Your task to perform on an android device: toggle pop-ups in chrome Image 0: 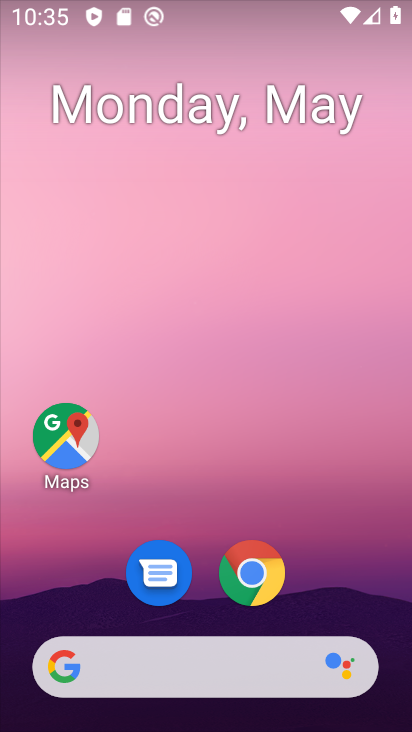
Step 0: drag from (327, 496) to (309, 730)
Your task to perform on an android device: toggle pop-ups in chrome Image 1: 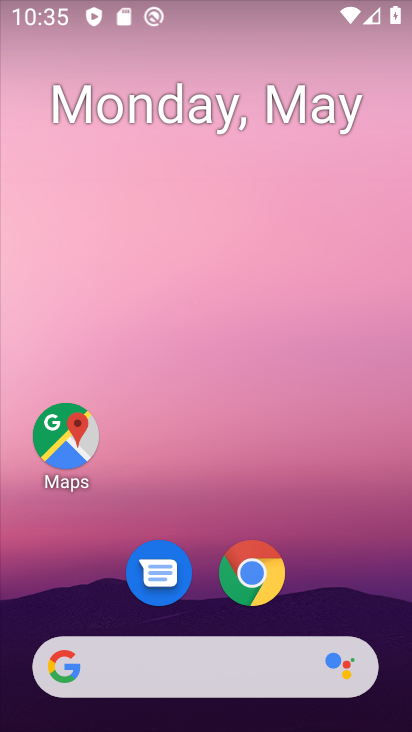
Step 1: click (259, 583)
Your task to perform on an android device: toggle pop-ups in chrome Image 2: 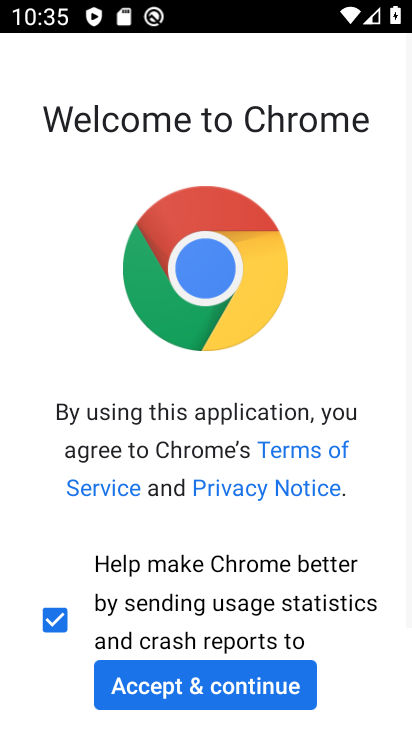
Step 2: click (256, 680)
Your task to perform on an android device: toggle pop-ups in chrome Image 3: 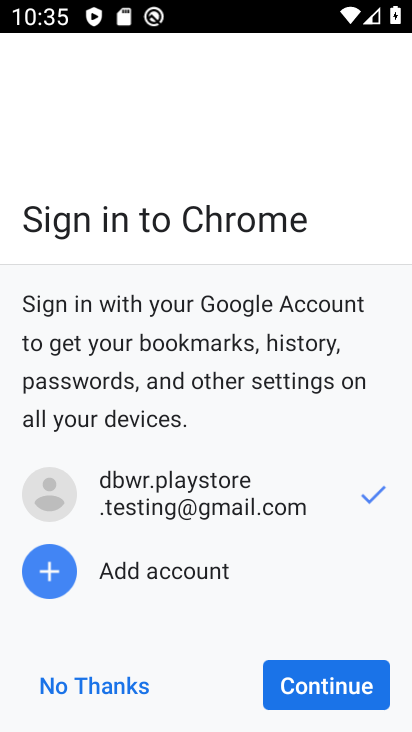
Step 3: click (360, 689)
Your task to perform on an android device: toggle pop-ups in chrome Image 4: 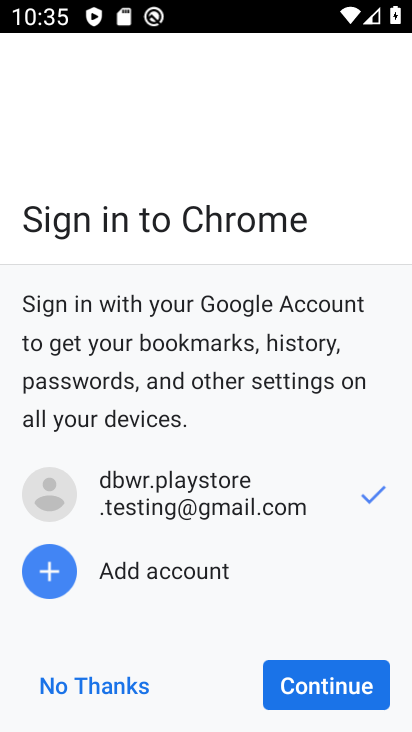
Step 4: click (360, 689)
Your task to perform on an android device: toggle pop-ups in chrome Image 5: 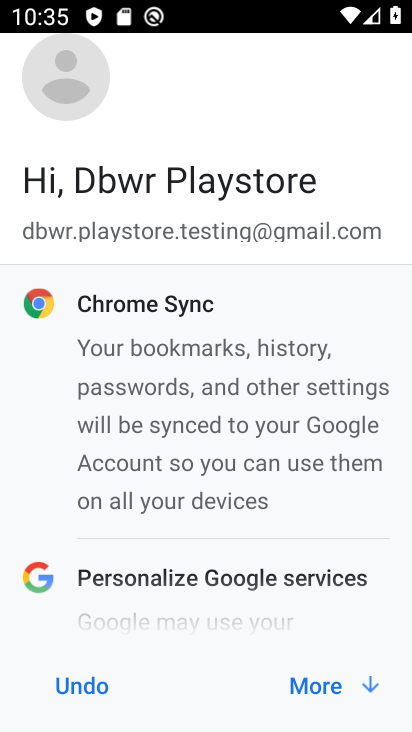
Step 5: click (360, 689)
Your task to perform on an android device: toggle pop-ups in chrome Image 6: 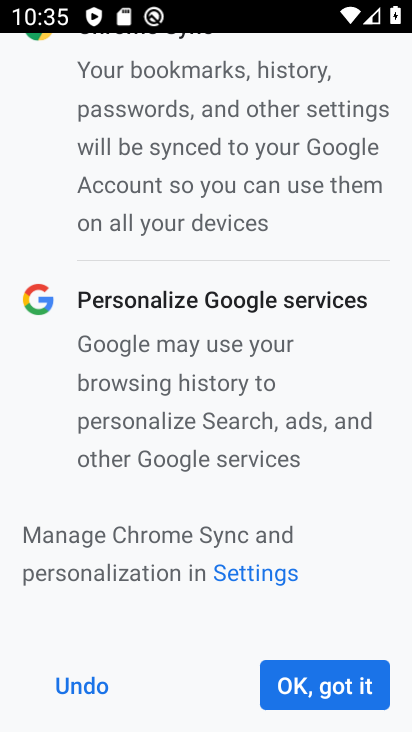
Step 6: click (360, 689)
Your task to perform on an android device: toggle pop-ups in chrome Image 7: 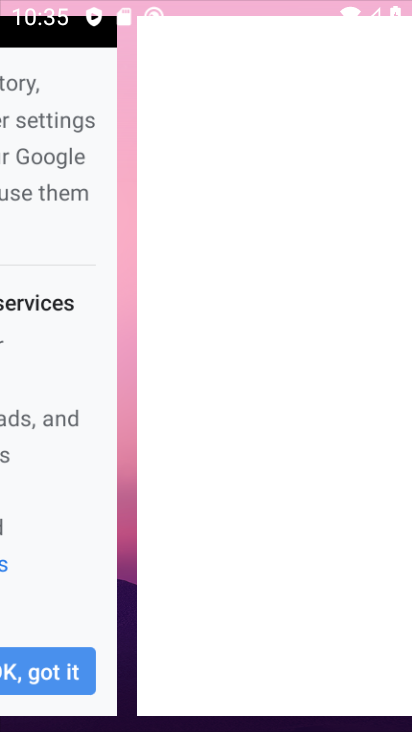
Step 7: click (359, 688)
Your task to perform on an android device: toggle pop-ups in chrome Image 8: 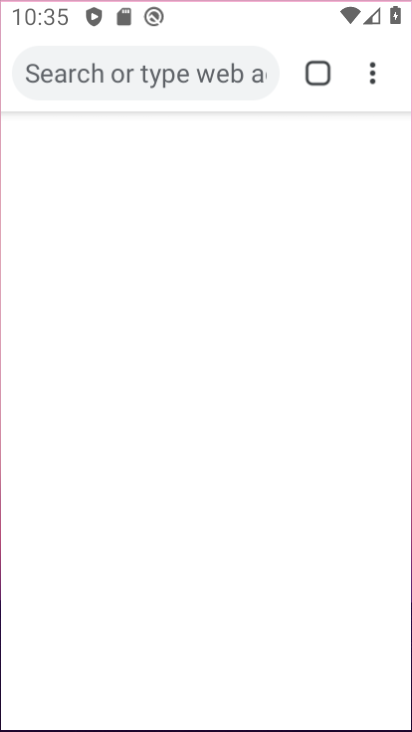
Step 8: click (359, 688)
Your task to perform on an android device: toggle pop-ups in chrome Image 9: 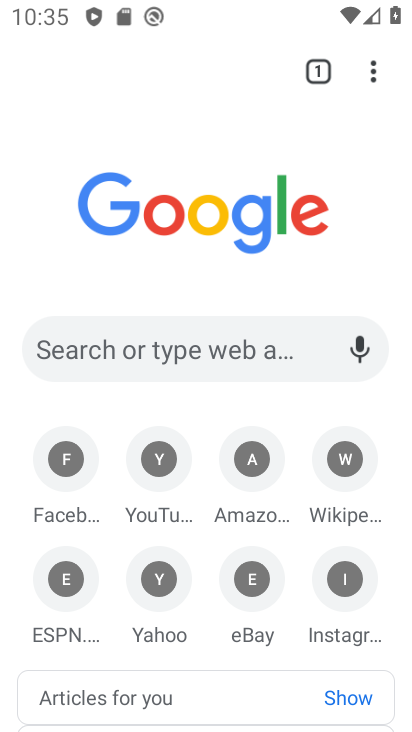
Step 9: click (375, 75)
Your task to perform on an android device: toggle pop-ups in chrome Image 10: 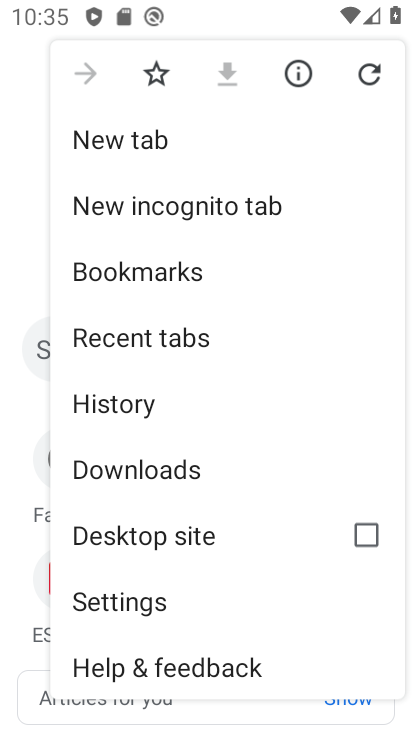
Step 10: click (209, 630)
Your task to perform on an android device: toggle pop-ups in chrome Image 11: 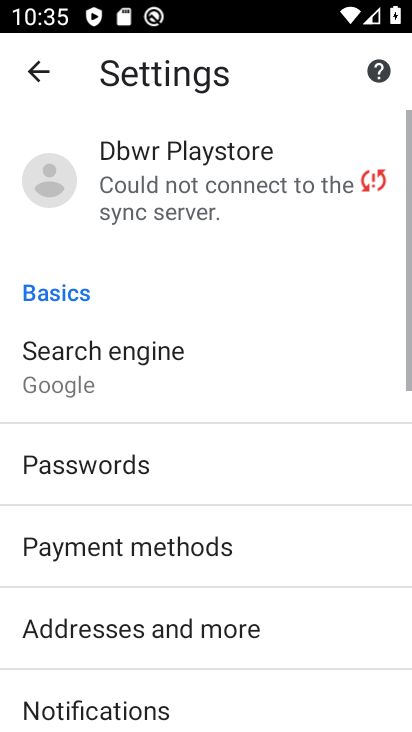
Step 11: drag from (218, 653) to (218, 106)
Your task to perform on an android device: toggle pop-ups in chrome Image 12: 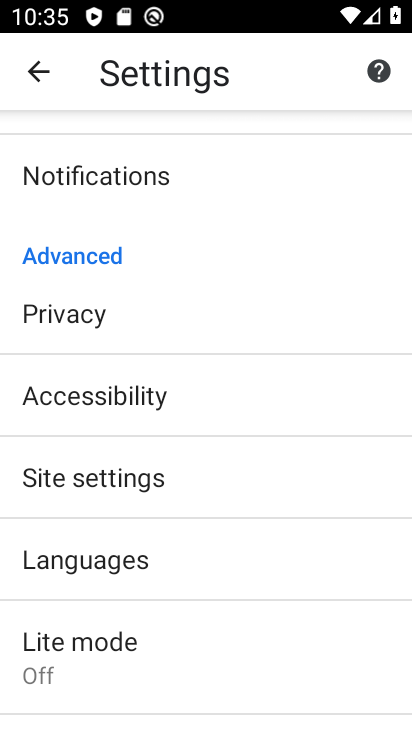
Step 12: click (173, 486)
Your task to perform on an android device: toggle pop-ups in chrome Image 13: 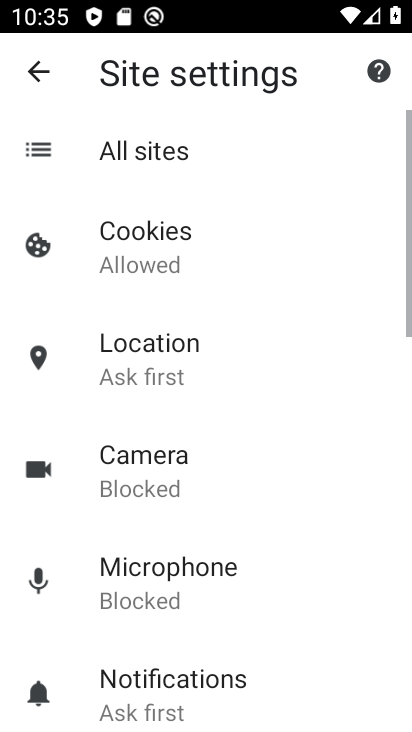
Step 13: drag from (230, 611) to (224, 243)
Your task to perform on an android device: toggle pop-ups in chrome Image 14: 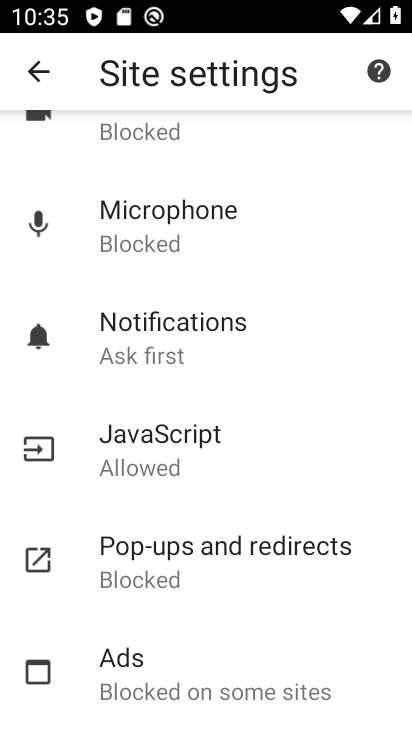
Step 14: click (204, 557)
Your task to perform on an android device: toggle pop-ups in chrome Image 15: 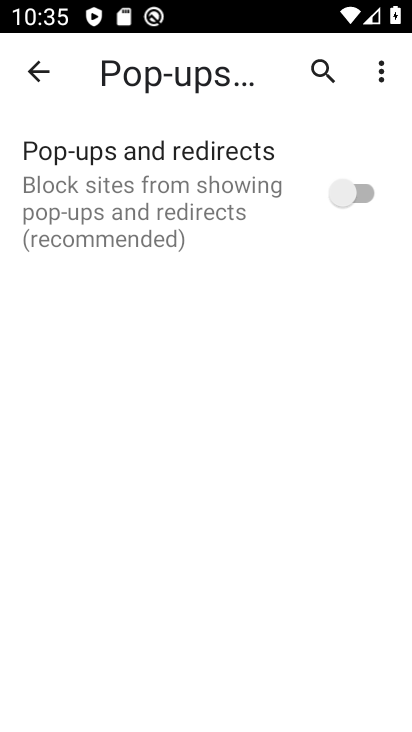
Step 15: click (365, 186)
Your task to perform on an android device: toggle pop-ups in chrome Image 16: 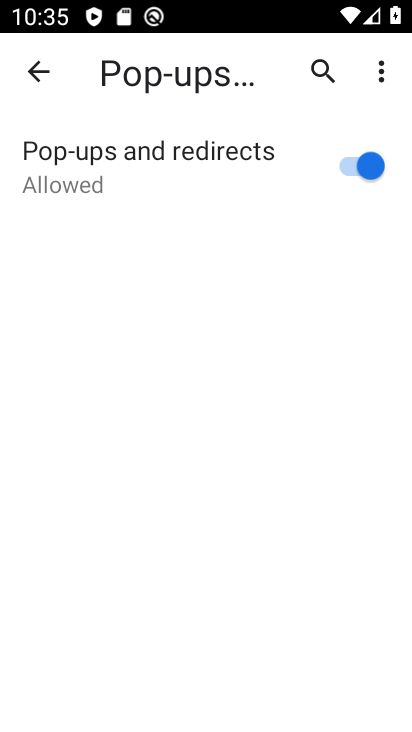
Step 16: task complete